Your task to perform on an android device: turn vacation reply on in the gmail app Image 0: 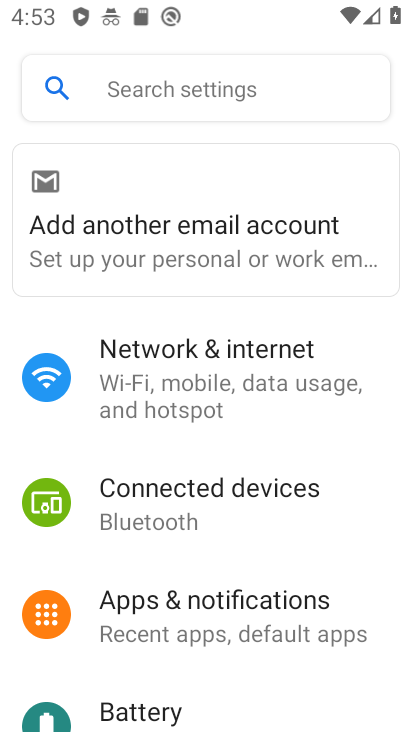
Step 0: press home button
Your task to perform on an android device: turn vacation reply on in the gmail app Image 1: 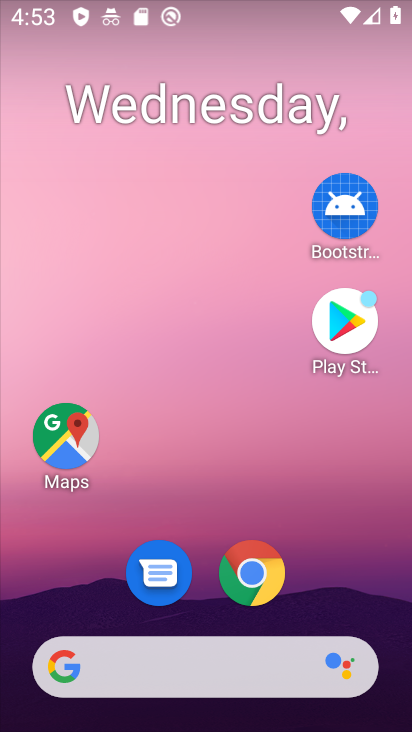
Step 1: drag from (363, 585) to (230, 126)
Your task to perform on an android device: turn vacation reply on in the gmail app Image 2: 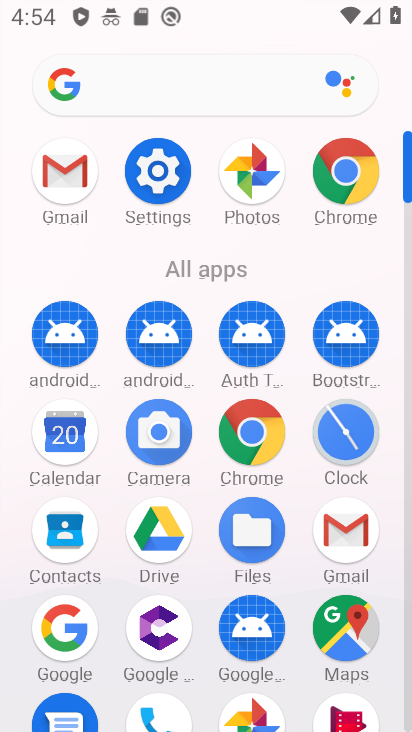
Step 2: click (397, 534)
Your task to perform on an android device: turn vacation reply on in the gmail app Image 3: 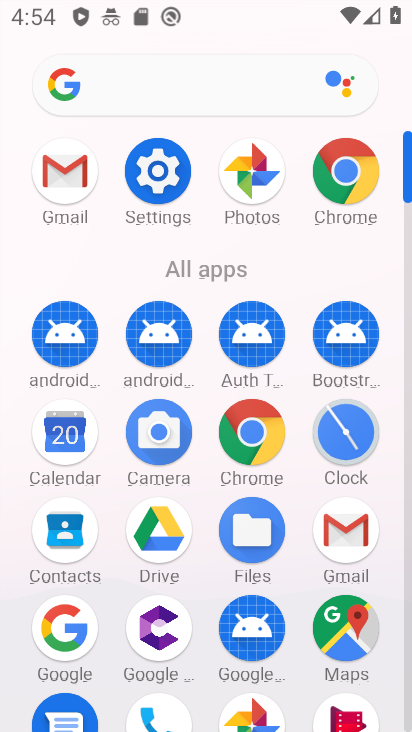
Step 3: click (347, 529)
Your task to perform on an android device: turn vacation reply on in the gmail app Image 4: 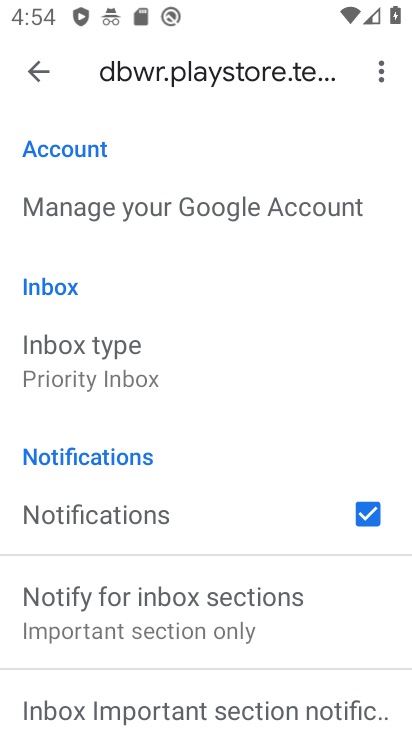
Step 4: drag from (333, 701) to (180, 280)
Your task to perform on an android device: turn vacation reply on in the gmail app Image 5: 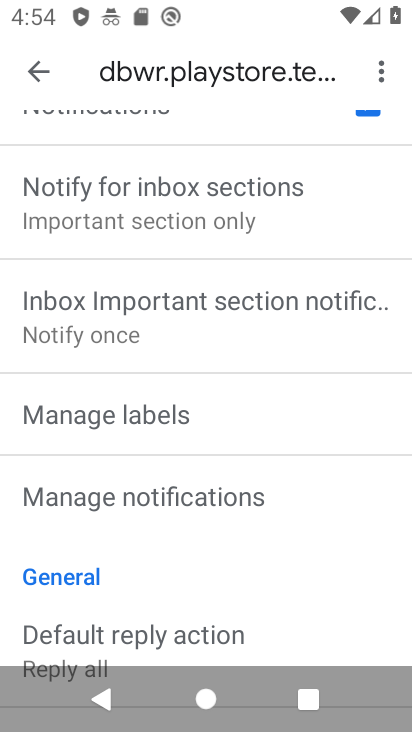
Step 5: drag from (241, 609) to (235, 213)
Your task to perform on an android device: turn vacation reply on in the gmail app Image 6: 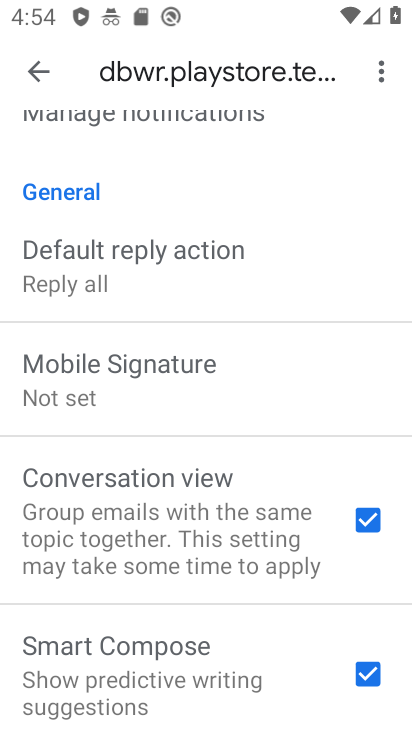
Step 6: drag from (171, 561) to (158, 184)
Your task to perform on an android device: turn vacation reply on in the gmail app Image 7: 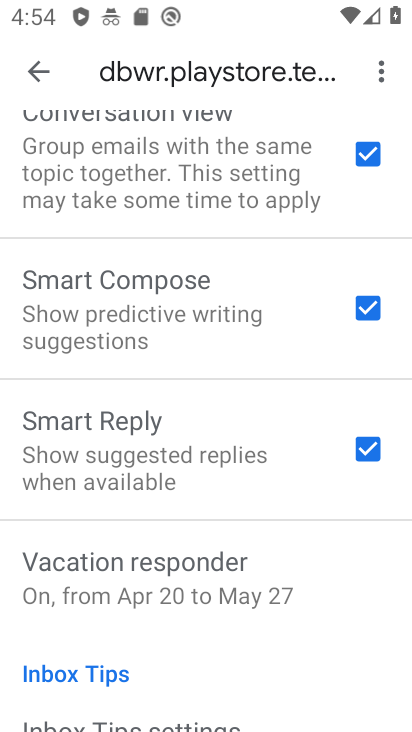
Step 7: click (219, 563)
Your task to perform on an android device: turn vacation reply on in the gmail app Image 8: 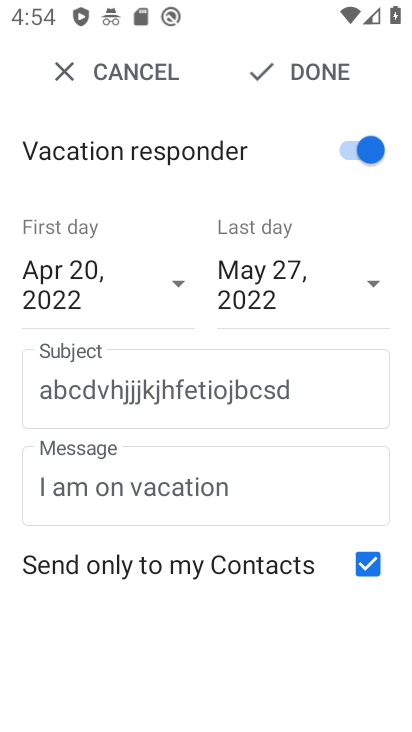
Step 8: click (319, 69)
Your task to perform on an android device: turn vacation reply on in the gmail app Image 9: 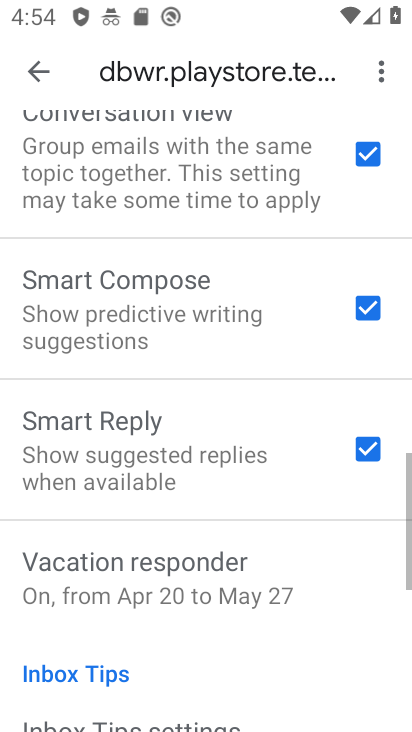
Step 9: task complete